Your task to perform on an android device: Open Chrome and go to settings Image 0: 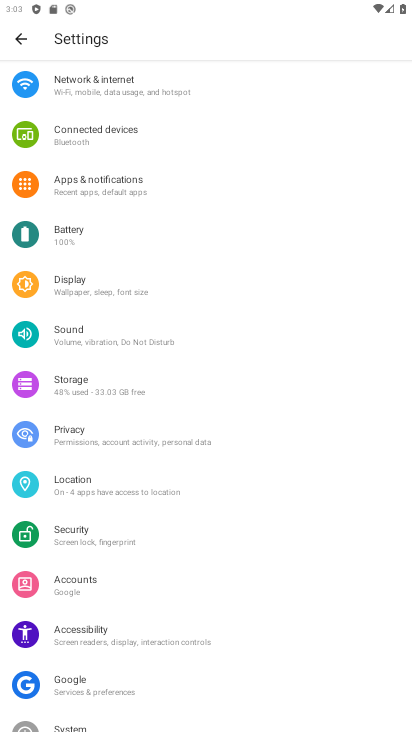
Step 0: press home button
Your task to perform on an android device: Open Chrome and go to settings Image 1: 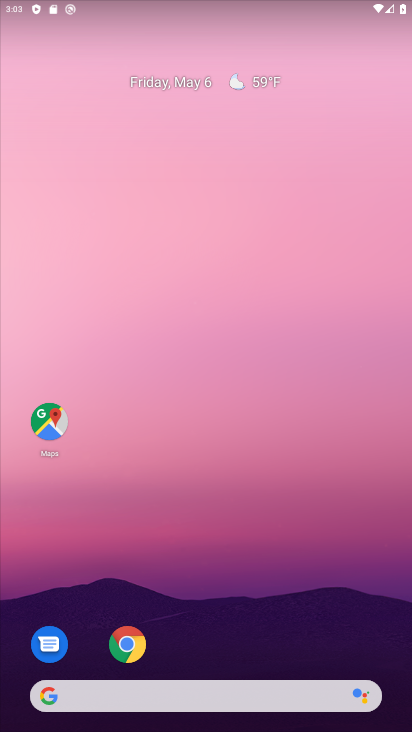
Step 1: click (126, 645)
Your task to perform on an android device: Open Chrome and go to settings Image 2: 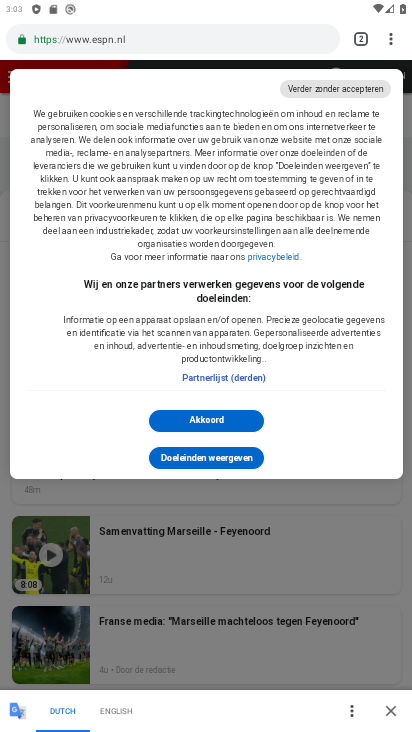
Step 2: task complete